Your task to perform on an android device: Open maps Image 0: 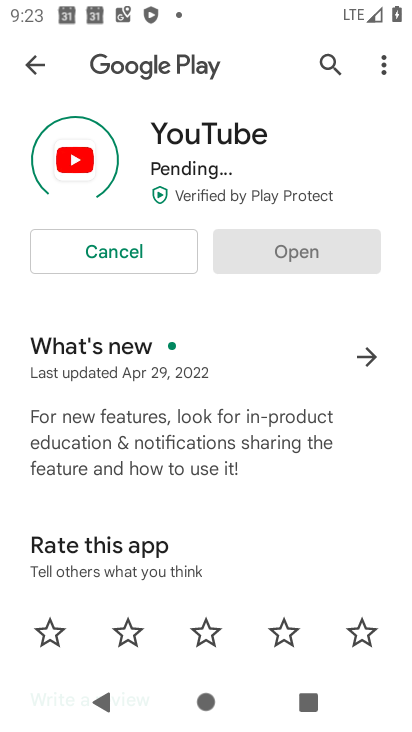
Step 0: press home button
Your task to perform on an android device: Open maps Image 1: 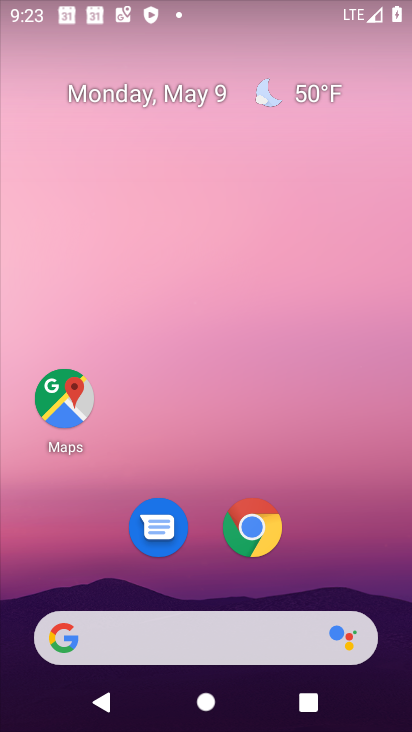
Step 1: click (50, 387)
Your task to perform on an android device: Open maps Image 2: 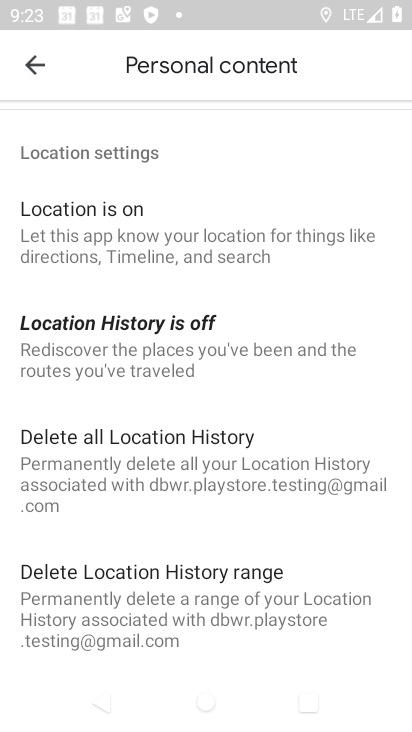
Step 2: click (41, 69)
Your task to perform on an android device: Open maps Image 3: 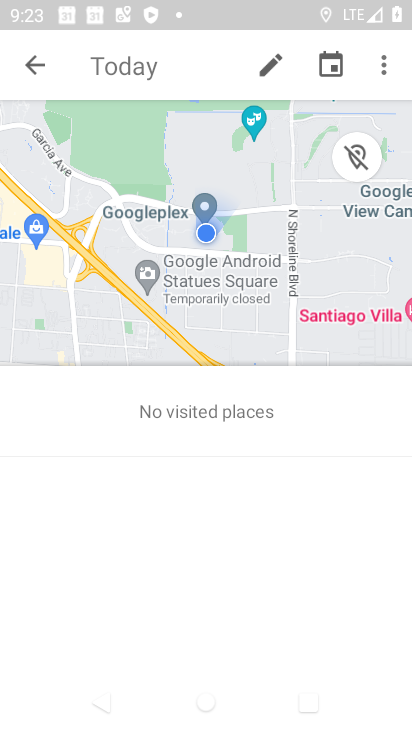
Step 3: click (36, 88)
Your task to perform on an android device: Open maps Image 4: 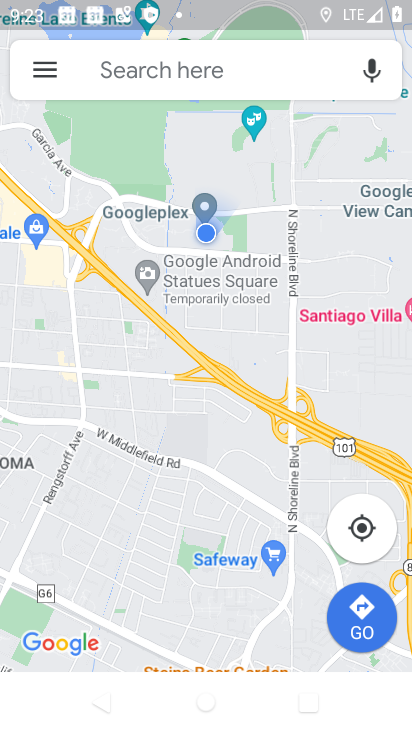
Step 4: task complete